Your task to perform on an android device: Open my contact list Image 0: 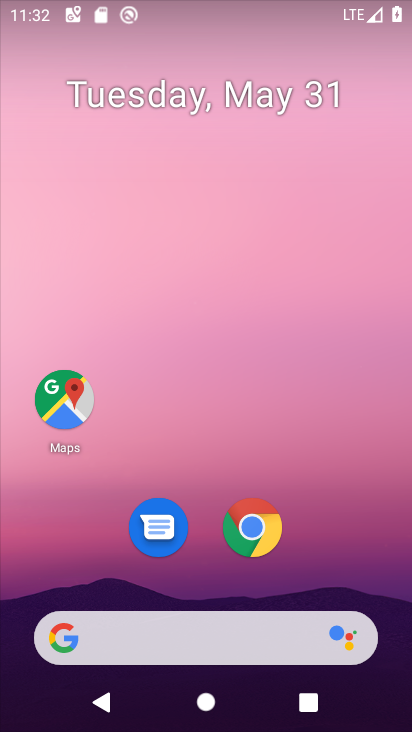
Step 0: drag from (326, 600) to (285, 0)
Your task to perform on an android device: Open my contact list Image 1: 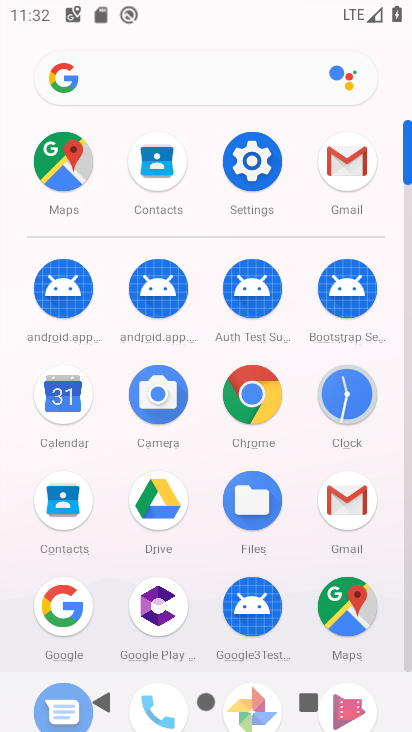
Step 1: click (52, 500)
Your task to perform on an android device: Open my contact list Image 2: 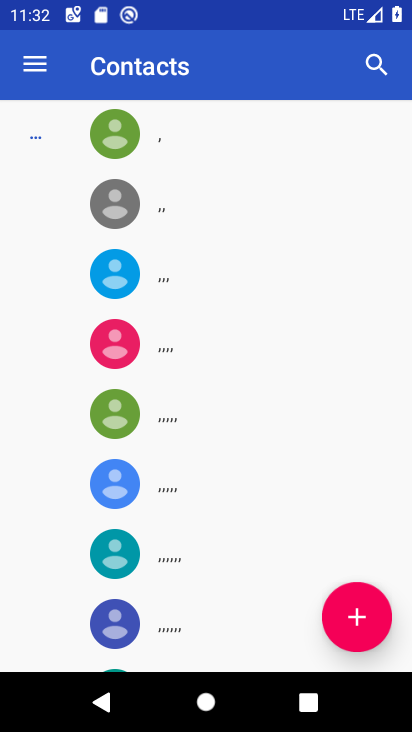
Step 2: task complete